Your task to perform on an android device: Do I have any events tomorrow? Image 0: 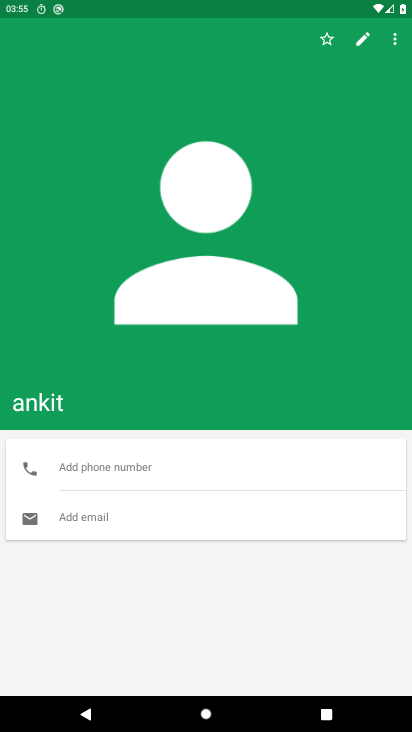
Step 0: press home button
Your task to perform on an android device: Do I have any events tomorrow? Image 1: 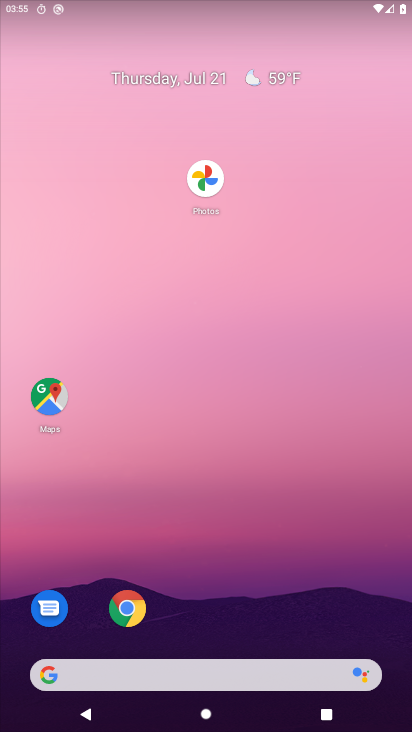
Step 1: drag from (197, 632) to (209, 152)
Your task to perform on an android device: Do I have any events tomorrow? Image 2: 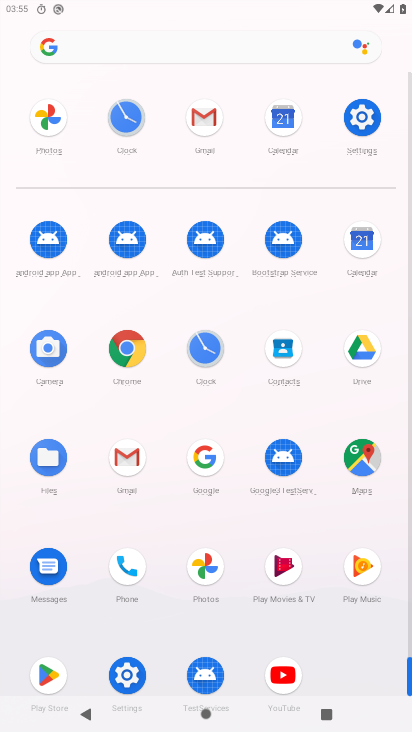
Step 2: click (365, 233)
Your task to perform on an android device: Do I have any events tomorrow? Image 3: 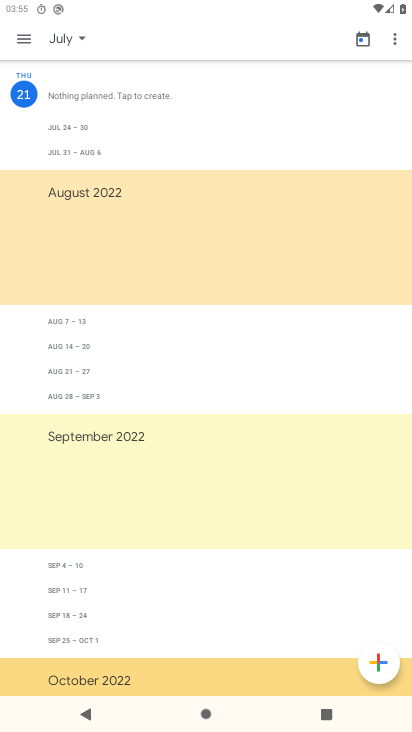
Step 3: click (76, 31)
Your task to perform on an android device: Do I have any events tomorrow? Image 4: 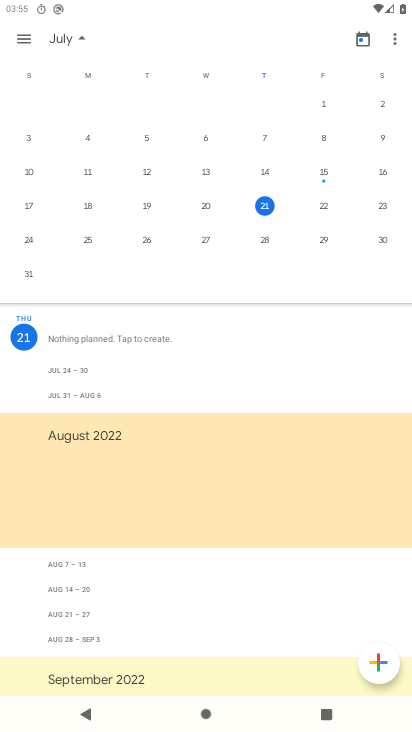
Step 4: click (318, 204)
Your task to perform on an android device: Do I have any events tomorrow? Image 5: 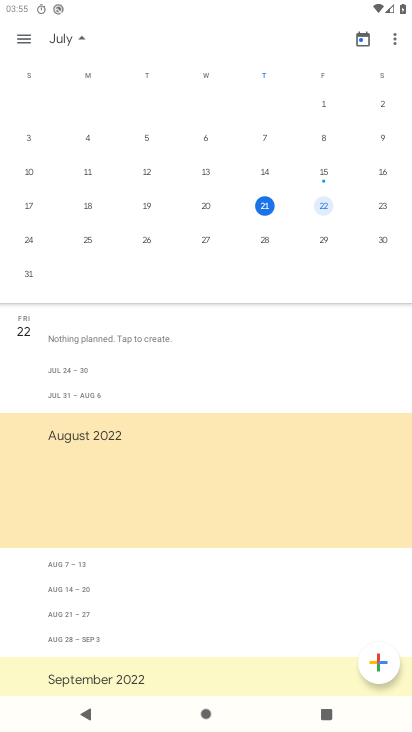
Step 5: click (319, 206)
Your task to perform on an android device: Do I have any events tomorrow? Image 6: 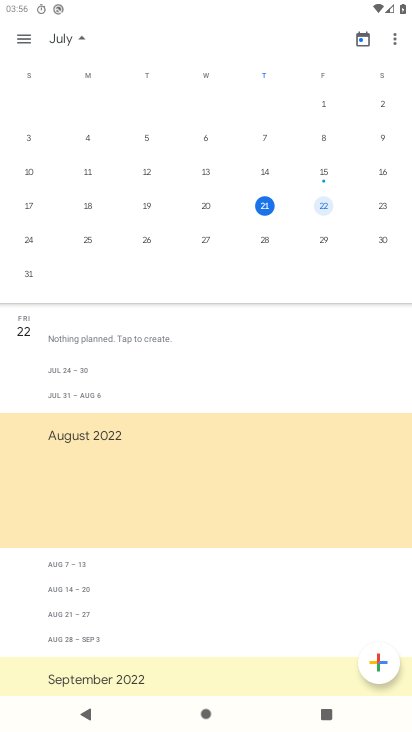
Step 6: click (28, 327)
Your task to perform on an android device: Do I have any events tomorrow? Image 7: 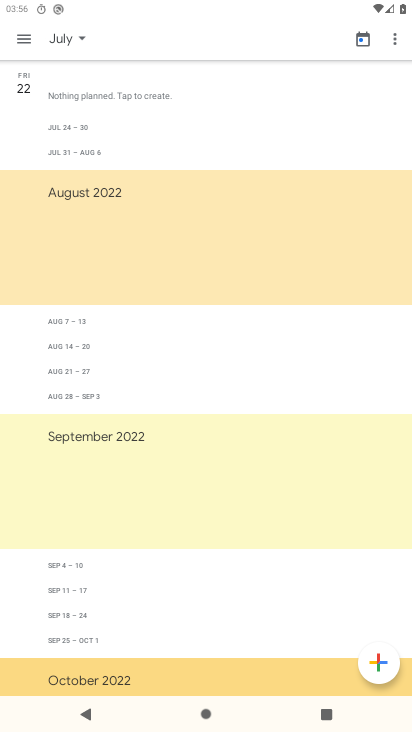
Step 7: click (28, 76)
Your task to perform on an android device: Do I have any events tomorrow? Image 8: 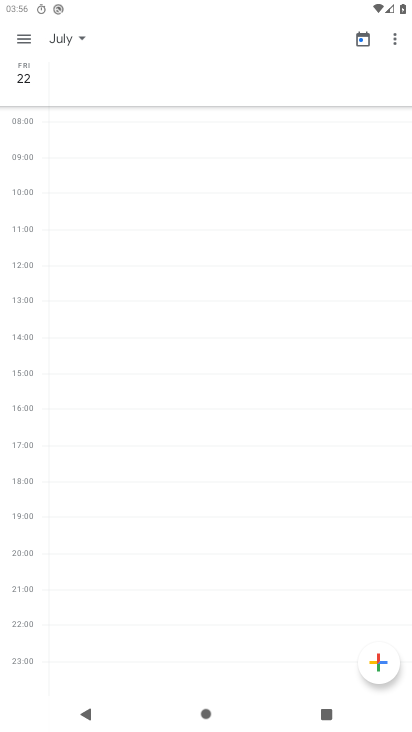
Step 8: task complete